Your task to perform on an android device: clear history in the chrome app Image 0: 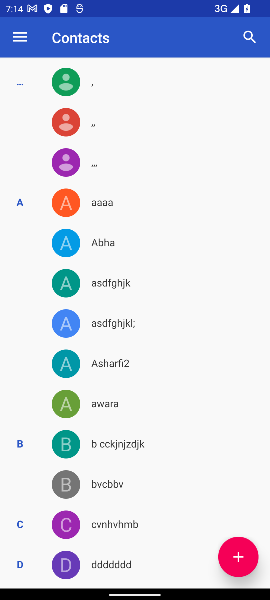
Step 0: press home button
Your task to perform on an android device: clear history in the chrome app Image 1: 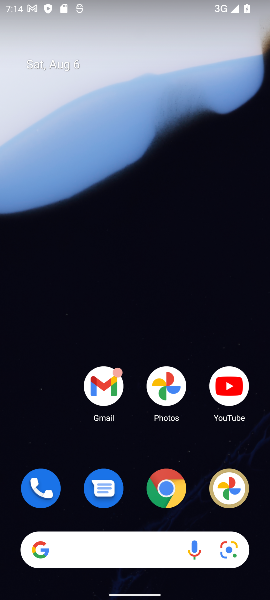
Step 1: click (174, 493)
Your task to perform on an android device: clear history in the chrome app Image 2: 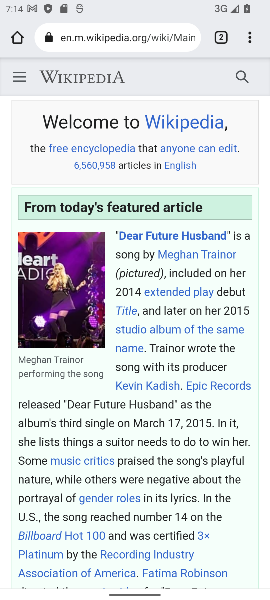
Step 2: click (251, 41)
Your task to perform on an android device: clear history in the chrome app Image 3: 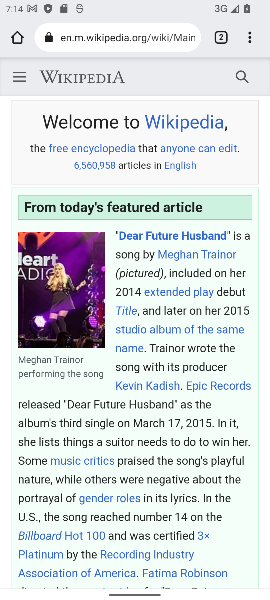
Step 3: click (245, 34)
Your task to perform on an android device: clear history in the chrome app Image 4: 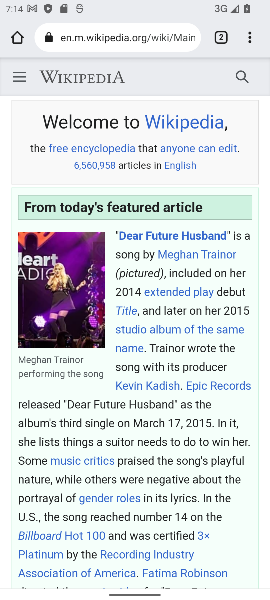
Step 4: click (253, 42)
Your task to perform on an android device: clear history in the chrome app Image 5: 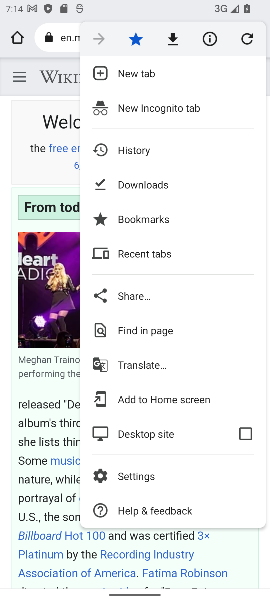
Step 5: click (154, 147)
Your task to perform on an android device: clear history in the chrome app Image 6: 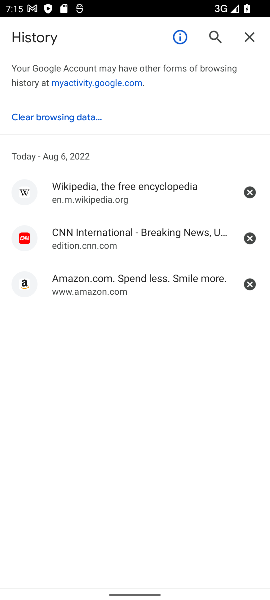
Step 6: click (63, 121)
Your task to perform on an android device: clear history in the chrome app Image 7: 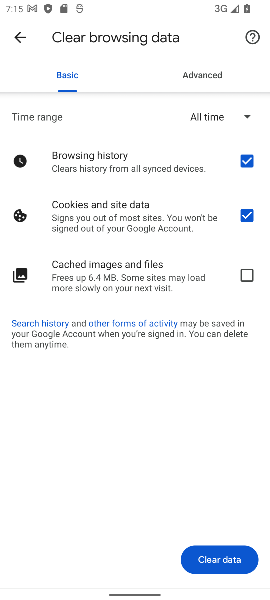
Step 7: click (243, 277)
Your task to perform on an android device: clear history in the chrome app Image 8: 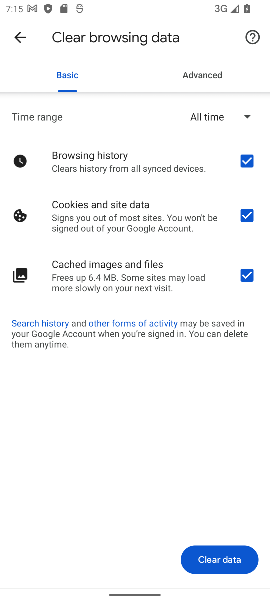
Step 8: click (237, 546)
Your task to perform on an android device: clear history in the chrome app Image 9: 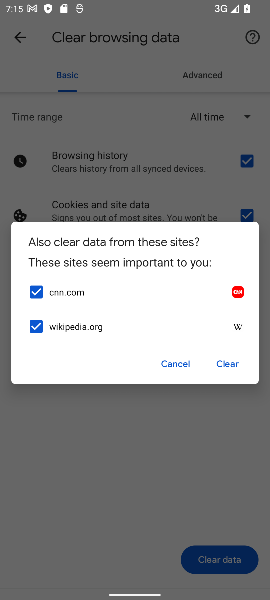
Step 9: click (225, 362)
Your task to perform on an android device: clear history in the chrome app Image 10: 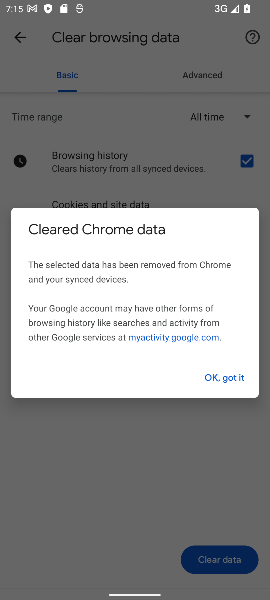
Step 10: click (224, 375)
Your task to perform on an android device: clear history in the chrome app Image 11: 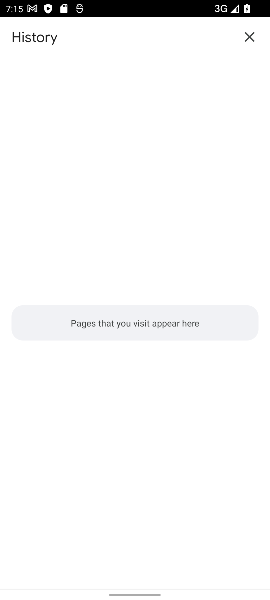
Step 11: task complete